Your task to perform on an android device: Open maps Image 0: 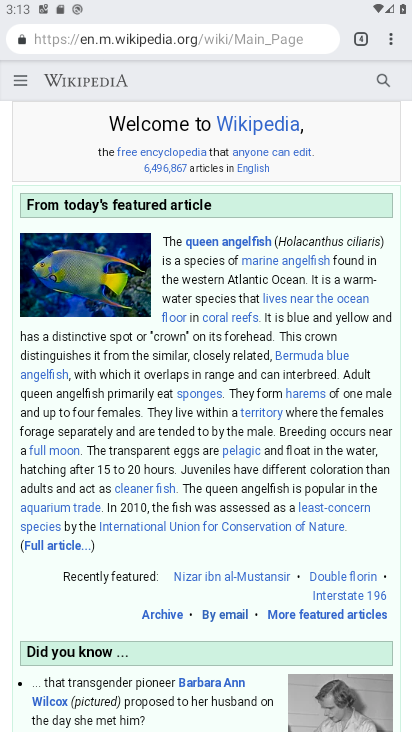
Step 0: press home button
Your task to perform on an android device: Open maps Image 1: 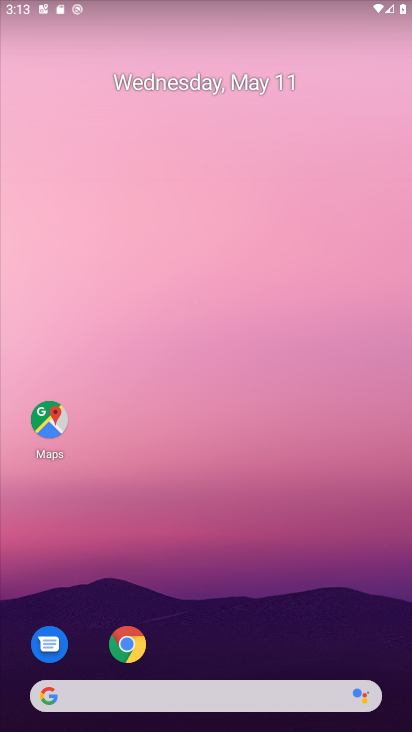
Step 1: click (55, 409)
Your task to perform on an android device: Open maps Image 2: 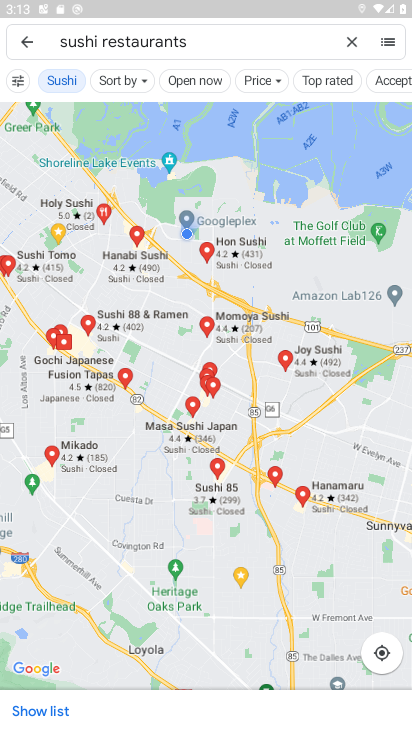
Step 2: task complete